Your task to perform on an android device: Go to Google Image 0: 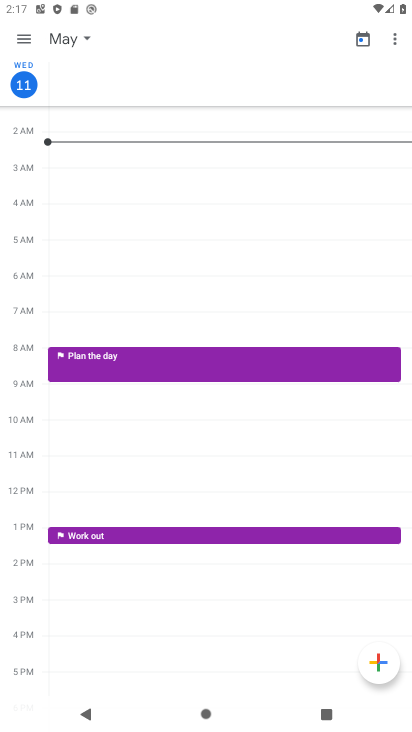
Step 0: press home button
Your task to perform on an android device: Go to Google Image 1: 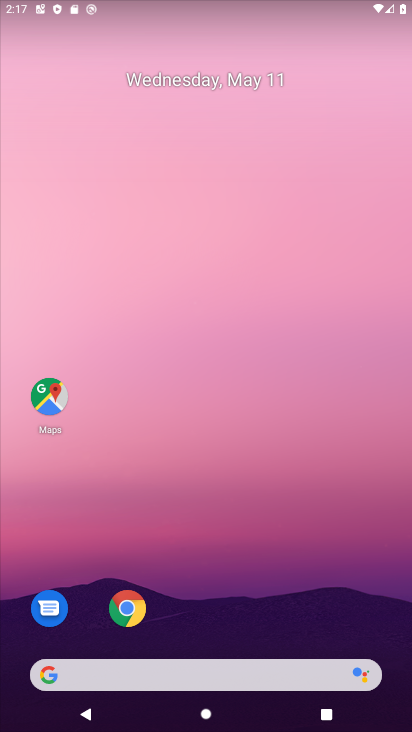
Step 1: drag from (258, 630) to (306, 258)
Your task to perform on an android device: Go to Google Image 2: 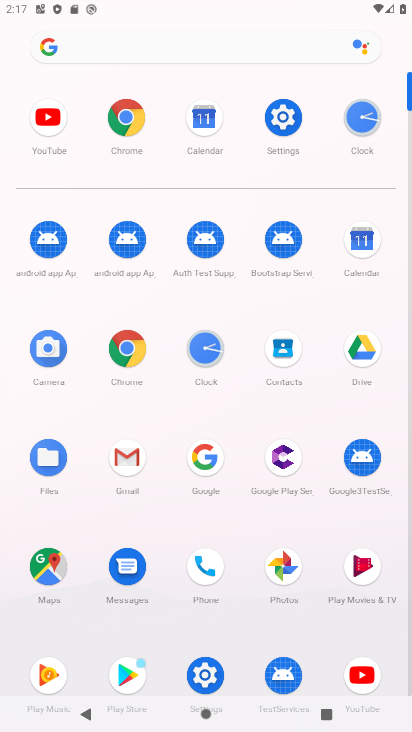
Step 2: click (206, 460)
Your task to perform on an android device: Go to Google Image 3: 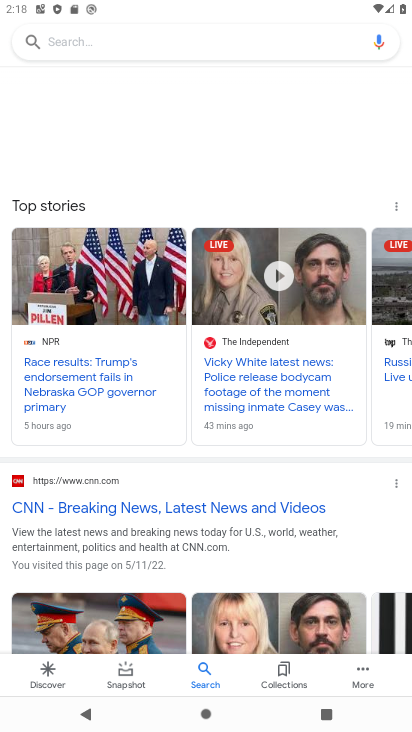
Step 3: task complete